Your task to perform on an android device: Go to wifi settings Image 0: 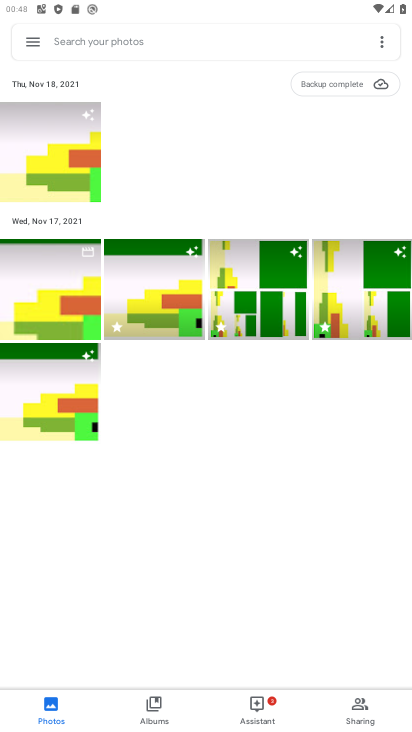
Step 0: press home button
Your task to perform on an android device: Go to wifi settings Image 1: 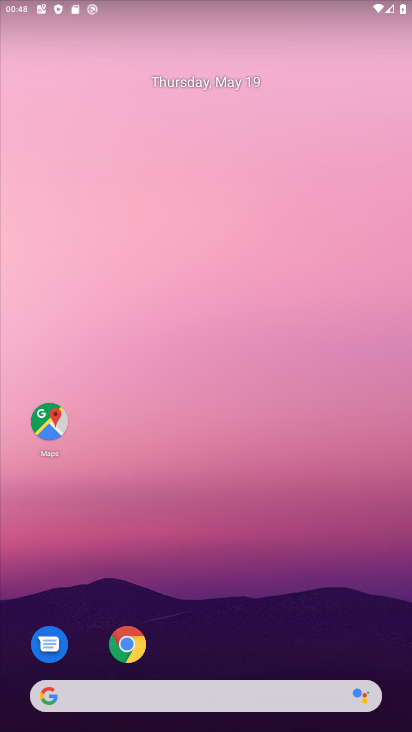
Step 1: drag from (367, 646) to (256, 69)
Your task to perform on an android device: Go to wifi settings Image 2: 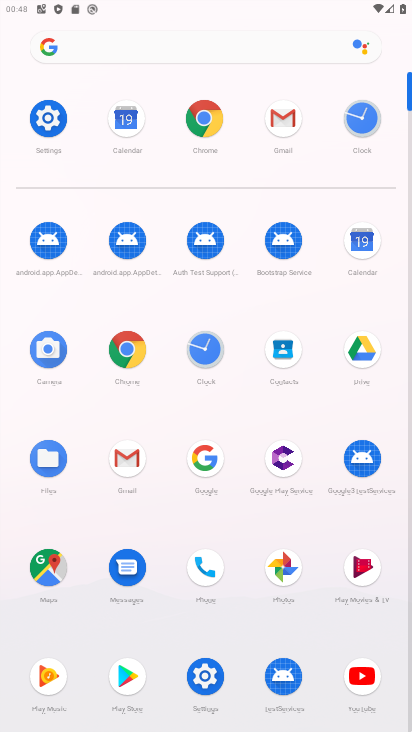
Step 2: click (206, 678)
Your task to perform on an android device: Go to wifi settings Image 3: 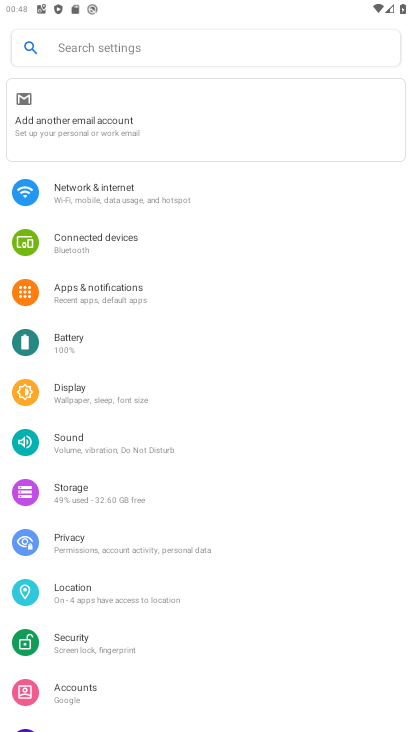
Step 3: click (175, 187)
Your task to perform on an android device: Go to wifi settings Image 4: 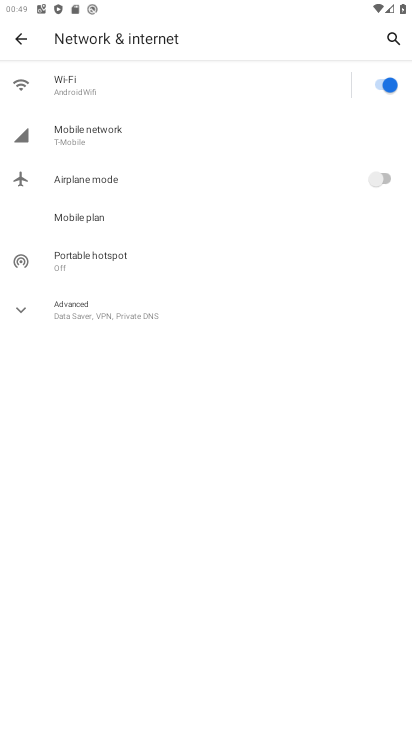
Step 4: task complete